Your task to perform on an android device: Open Google Image 0: 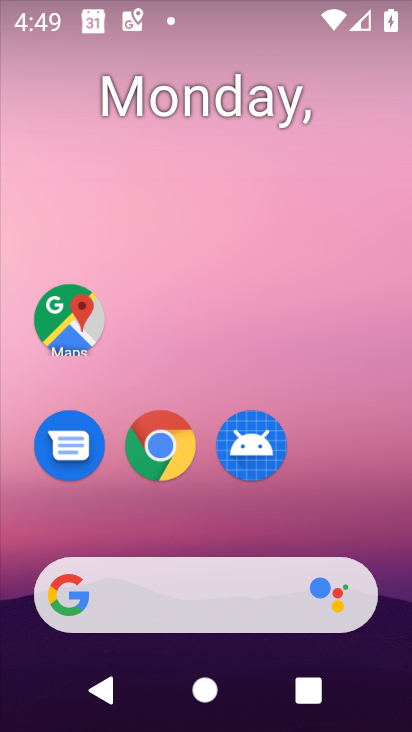
Step 0: drag from (326, 481) to (361, 4)
Your task to perform on an android device: Open Google Image 1: 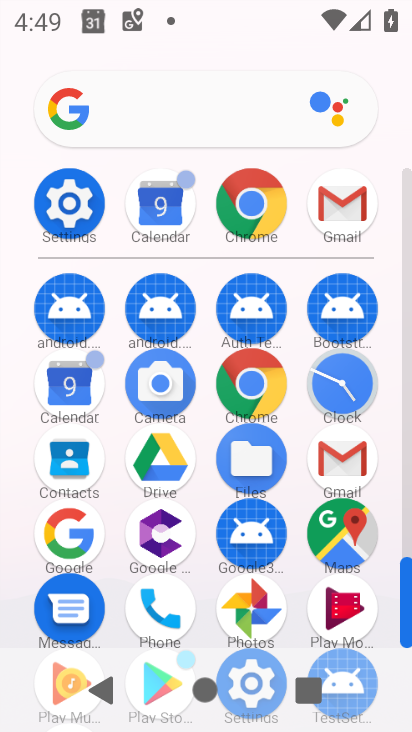
Step 1: drag from (404, 585) to (409, 698)
Your task to perform on an android device: Open Google Image 2: 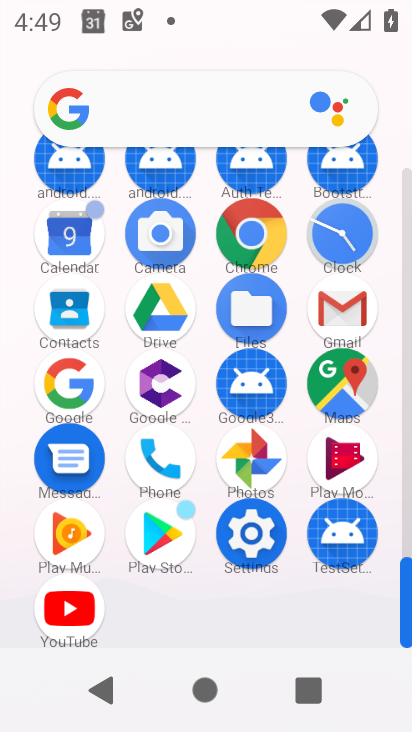
Step 2: click (411, 441)
Your task to perform on an android device: Open Google Image 3: 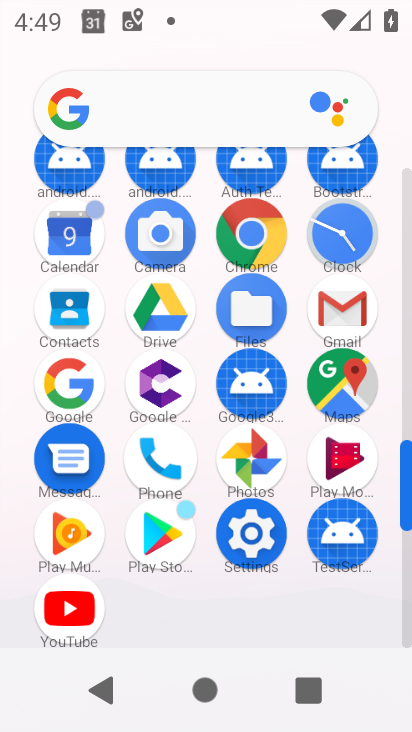
Step 3: click (407, 435)
Your task to perform on an android device: Open Google Image 4: 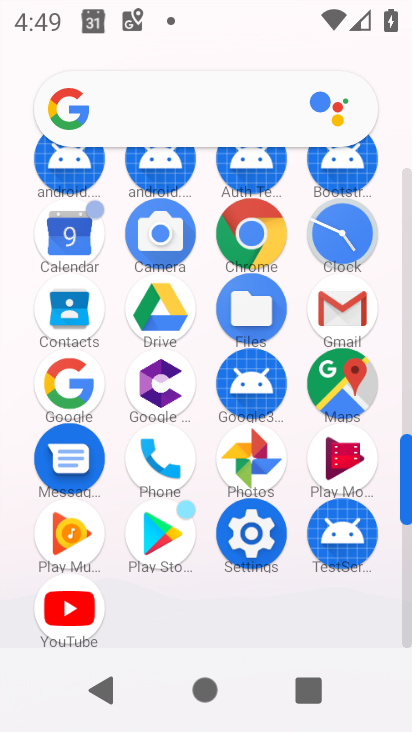
Step 4: click (405, 394)
Your task to perform on an android device: Open Google Image 5: 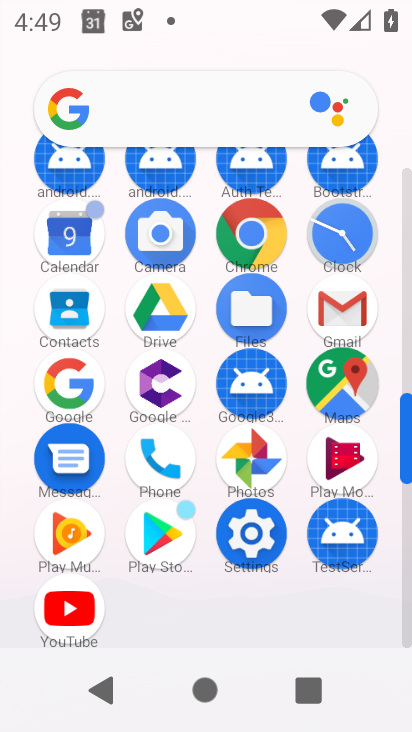
Step 5: drag from (405, 393) to (410, 182)
Your task to perform on an android device: Open Google Image 6: 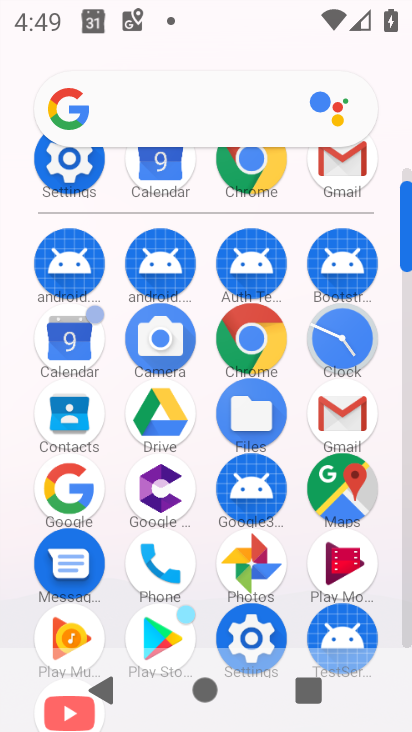
Step 6: click (65, 498)
Your task to perform on an android device: Open Google Image 7: 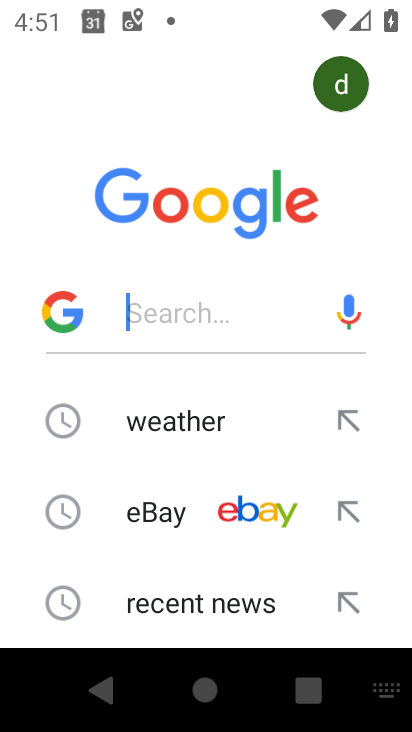
Step 7: task complete